Your task to perform on an android device: When is my next appointment? Image 0: 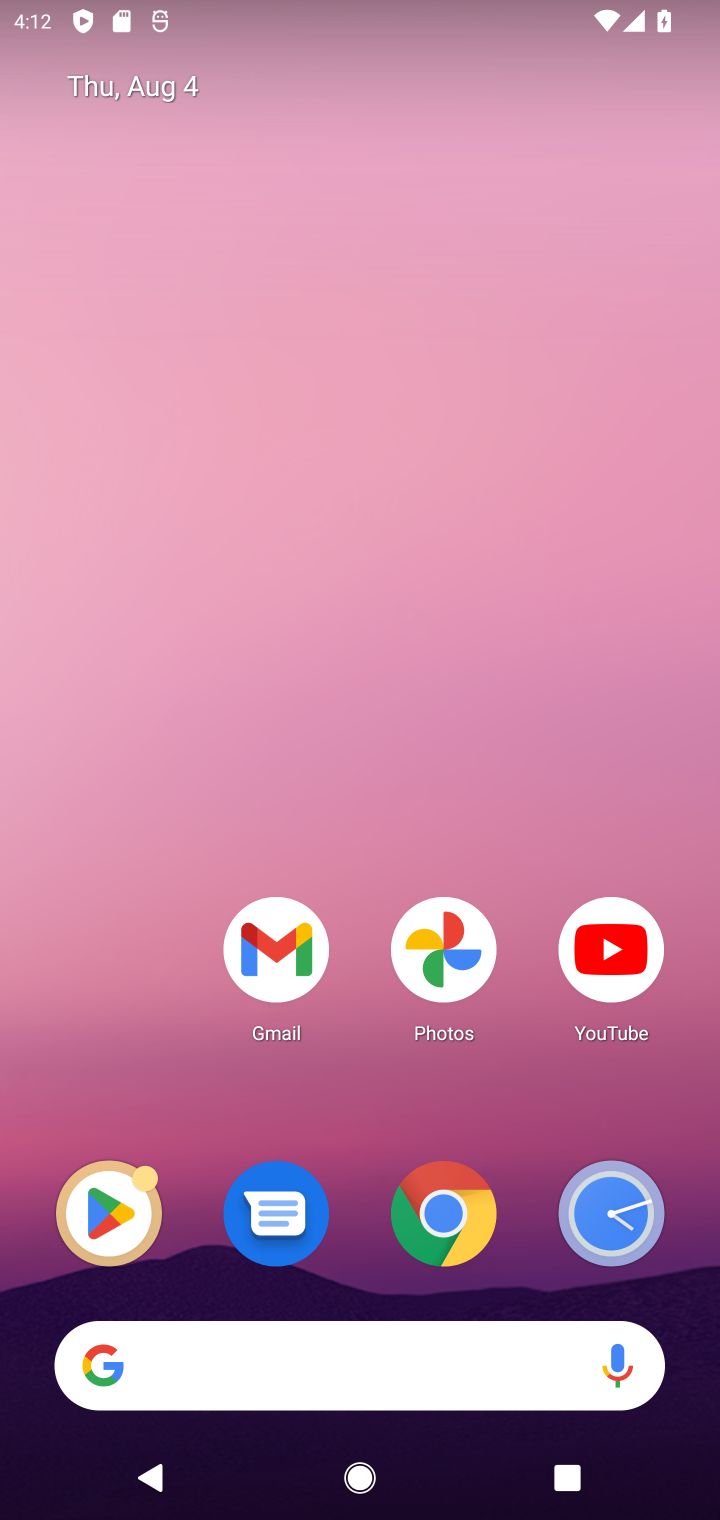
Step 0: drag from (154, 1055) to (170, 215)
Your task to perform on an android device: When is my next appointment? Image 1: 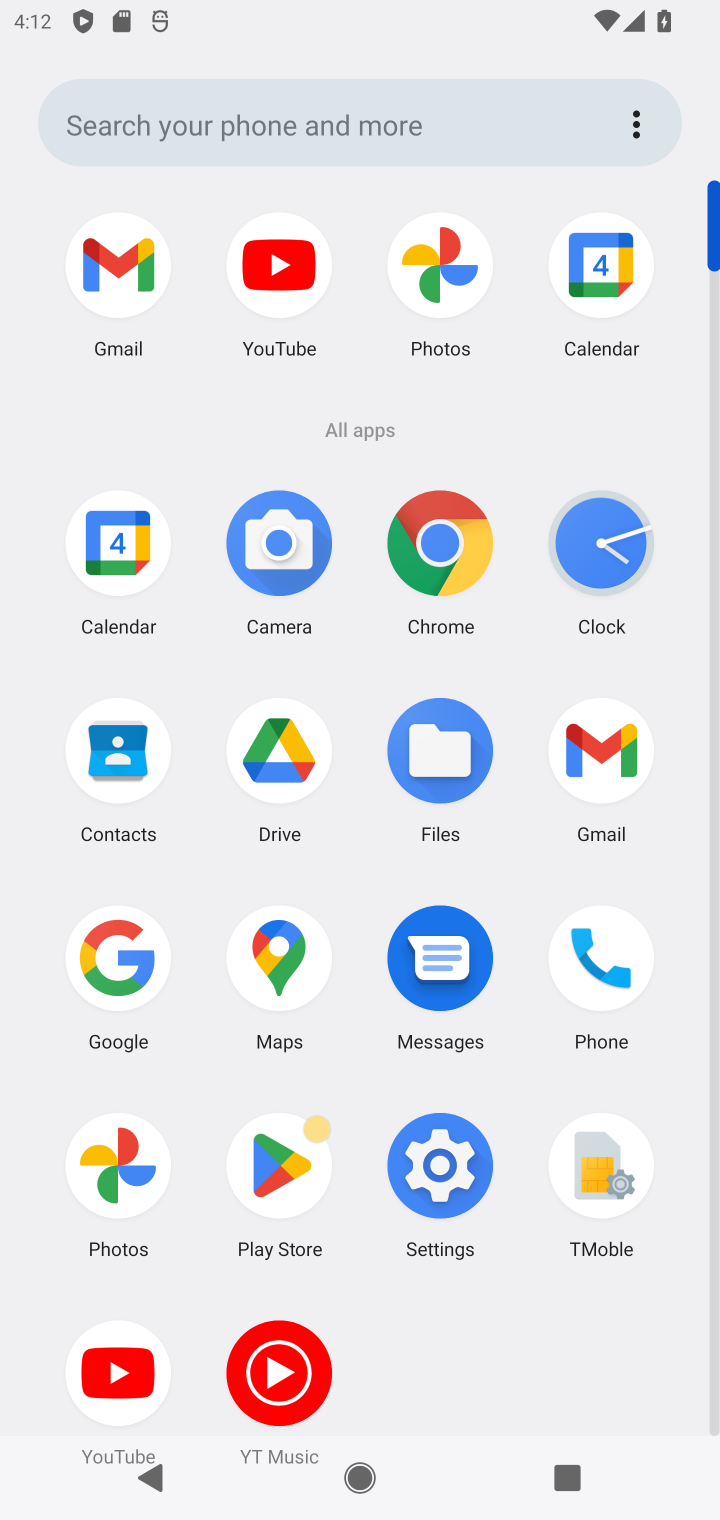
Step 1: click (115, 537)
Your task to perform on an android device: When is my next appointment? Image 2: 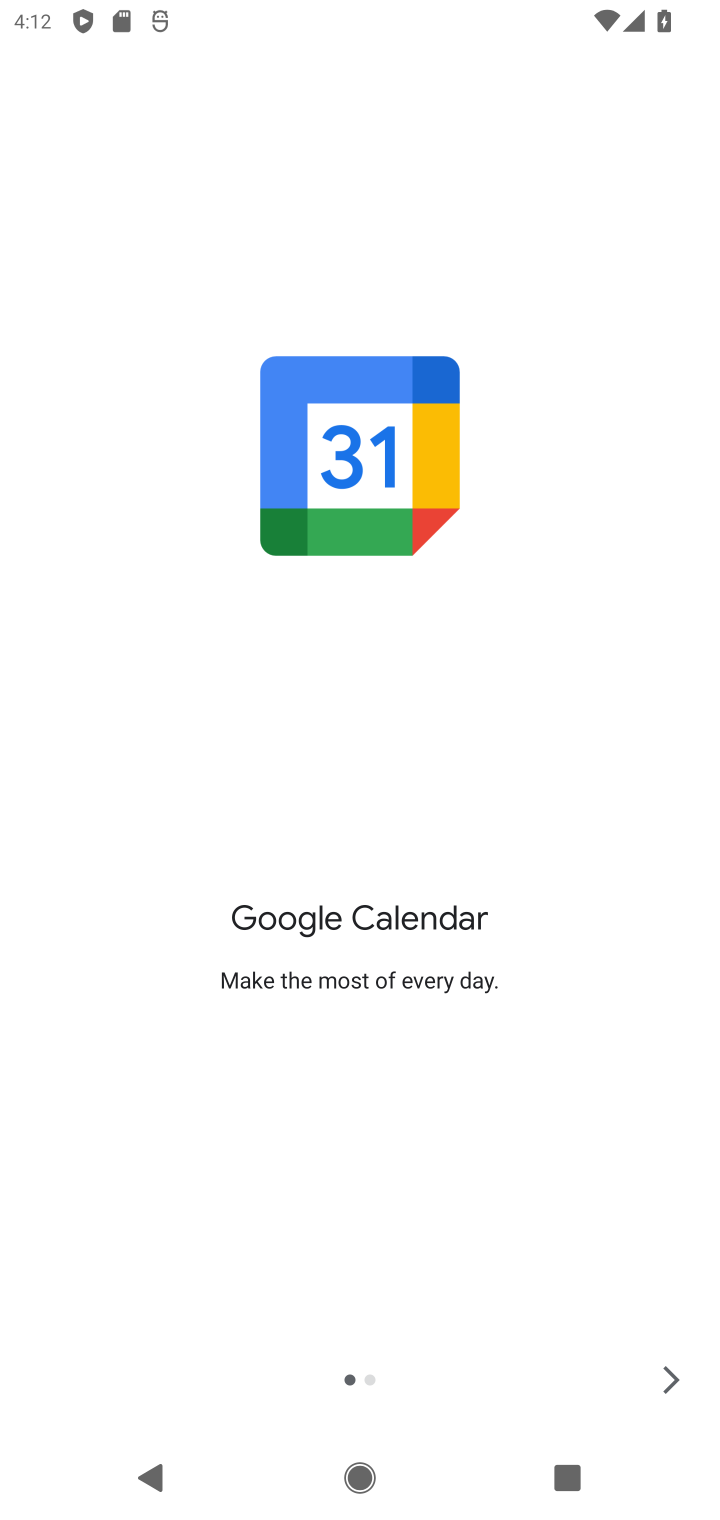
Step 2: click (676, 1379)
Your task to perform on an android device: When is my next appointment? Image 3: 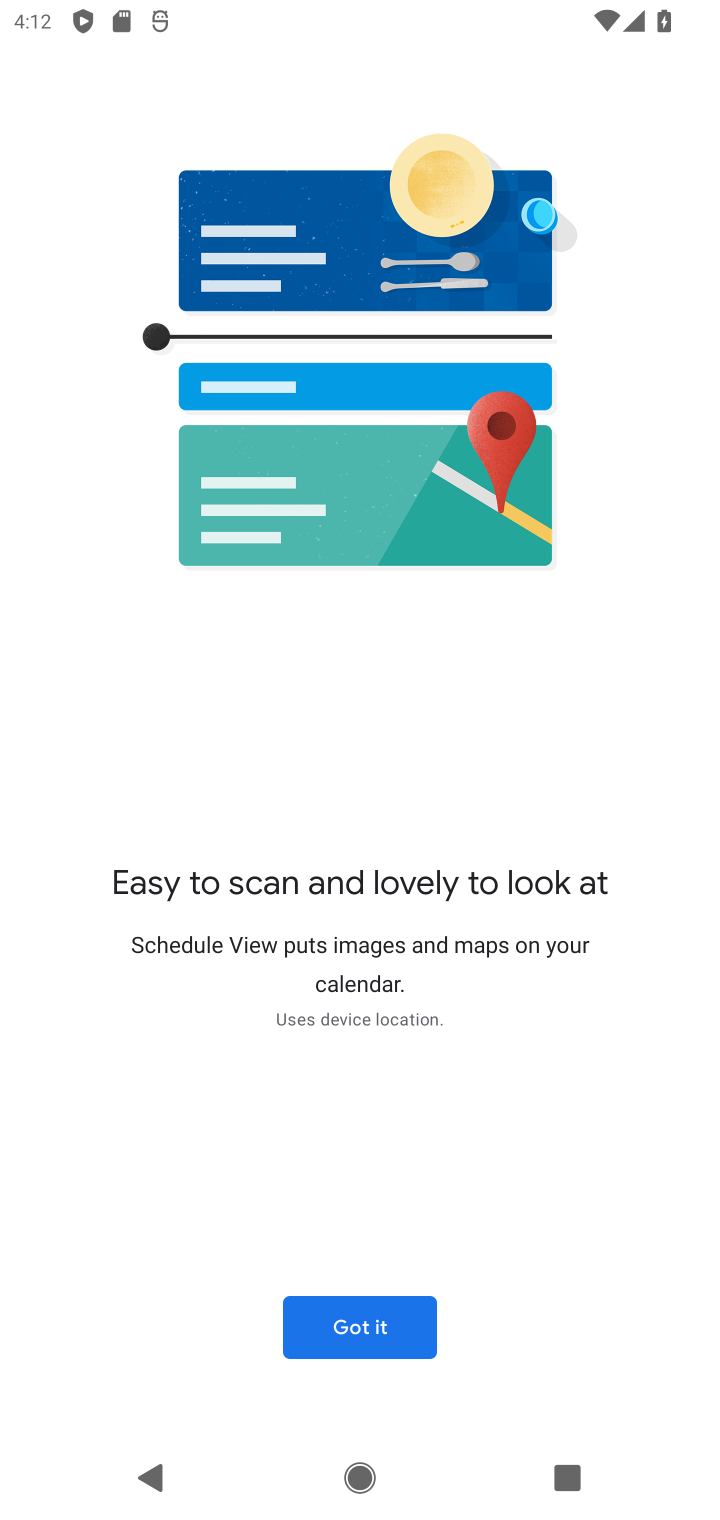
Step 3: click (386, 1327)
Your task to perform on an android device: When is my next appointment? Image 4: 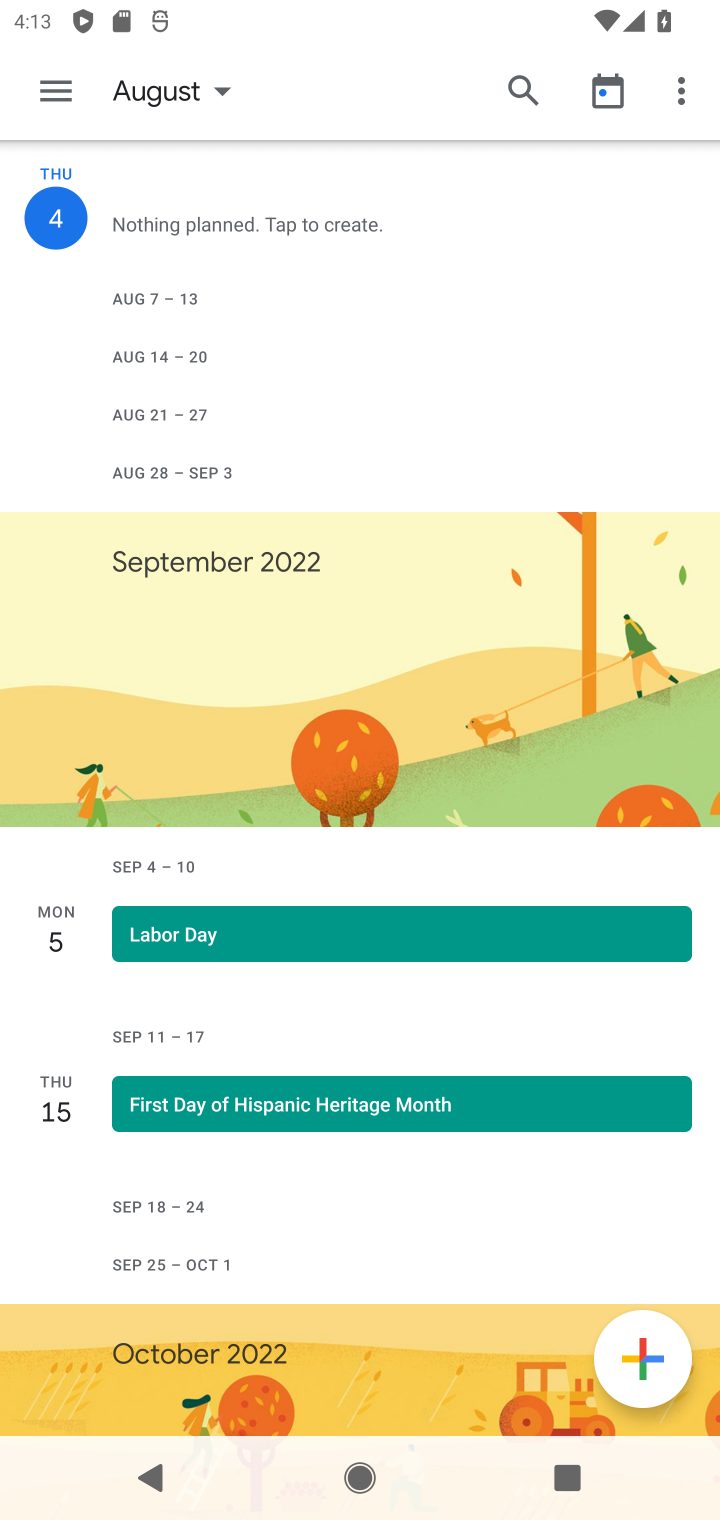
Step 4: task complete